Your task to perform on an android device: Go to battery settings Image 0: 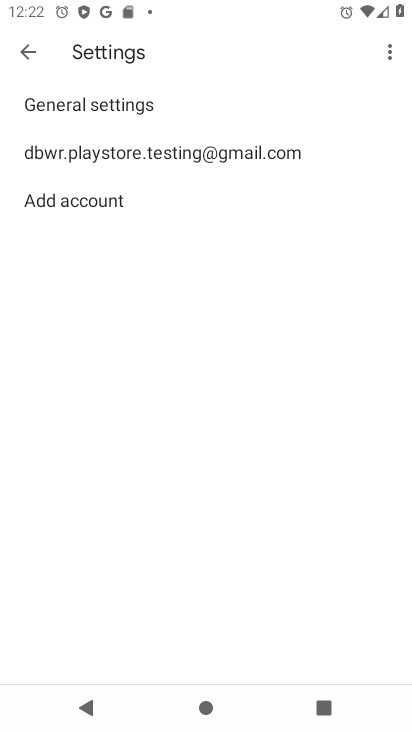
Step 0: press home button
Your task to perform on an android device: Go to battery settings Image 1: 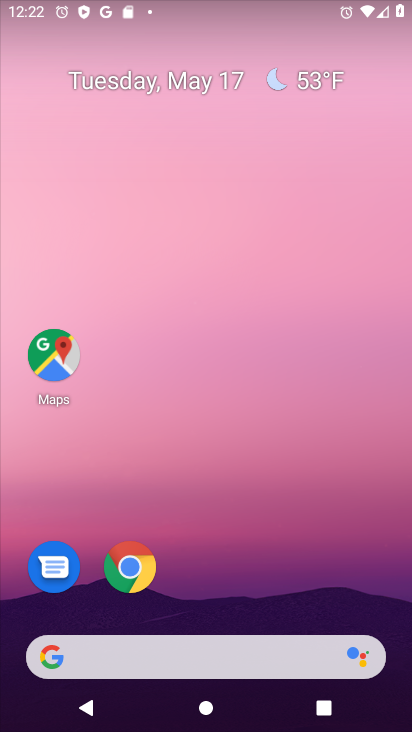
Step 1: drag from (348, 554) to (346, 108)
Your task to perform on an android device: Go to battery settings Image 2: 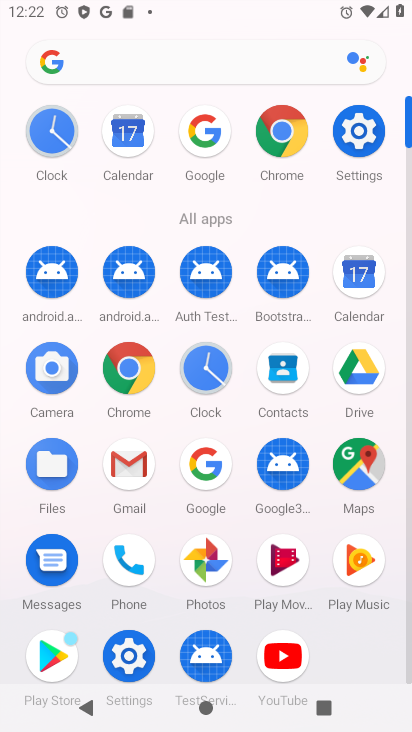
Step 2: click (364, 137)
Your task to perform on an android device: Go to battery settings Image 3: 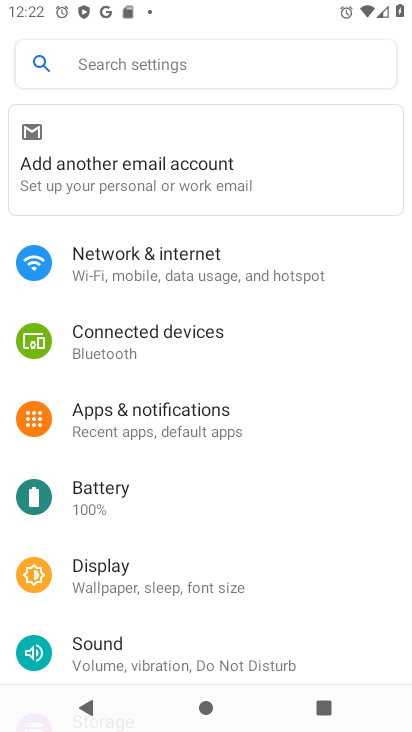
Step 3: drag from (320, 511) to (333, 420)
Your task to perform on an android device: Go to battery settings Image 4: 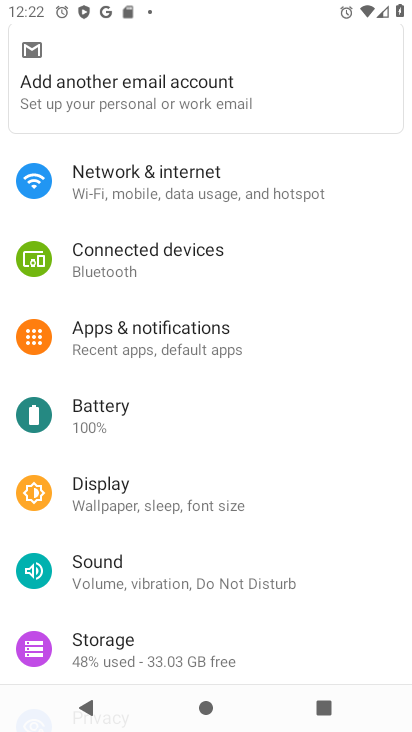
Step 4: drag from (343, 562) to (356, 439)
Your task to perform on an android device: Go to battery settings Image 5: 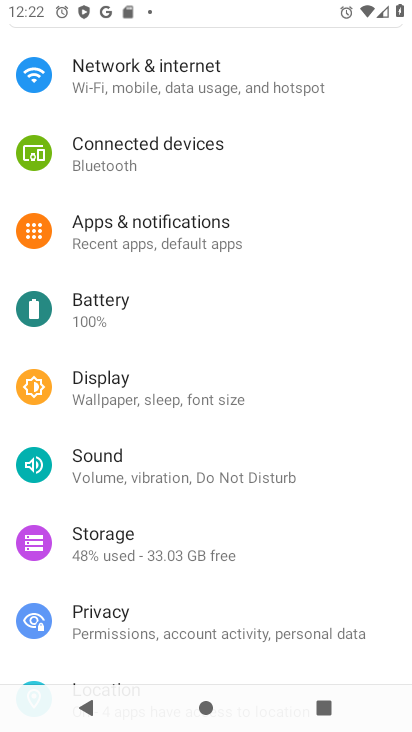
Step 5: drag from (339, 552) to (362, 408)
Your task to perform on an android device: Go to battery settings Image 6: 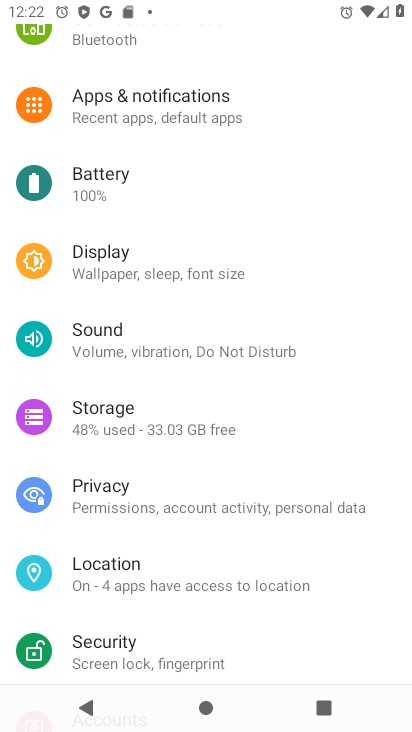
Step 6: drag from (334, 603) to (332, 455)
Your task to perform on an android device: Go to battery settings Image 7: 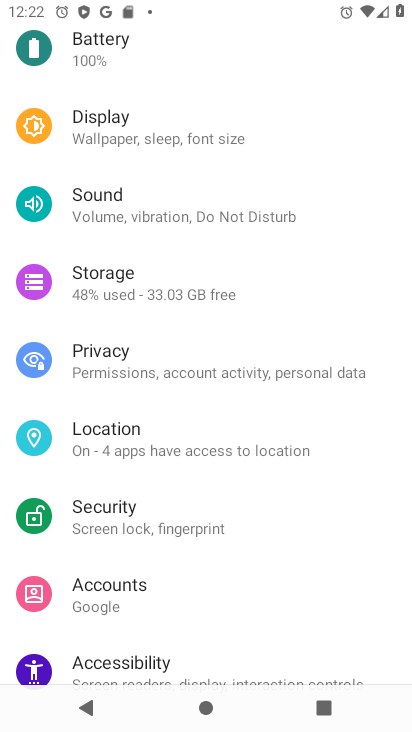
Step 7: drag from (298, 603) to (288, 477)
Your task to perform on an android device: Go to battery settings Image 8: 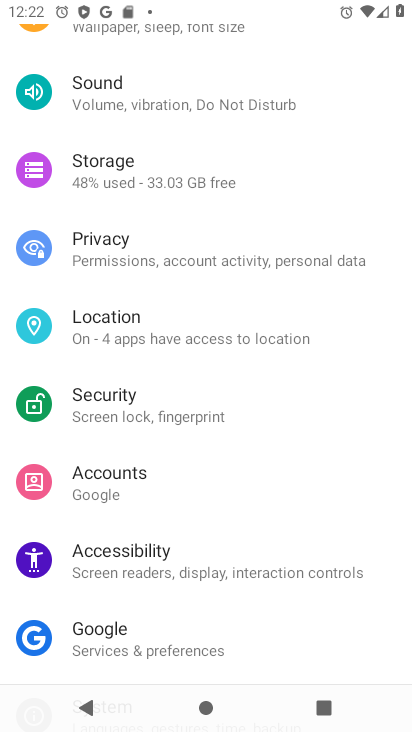
Step 8: drag from (273, 611) to (295, 501)
Your task to perform on an android device: Go to battery settings Image 9: 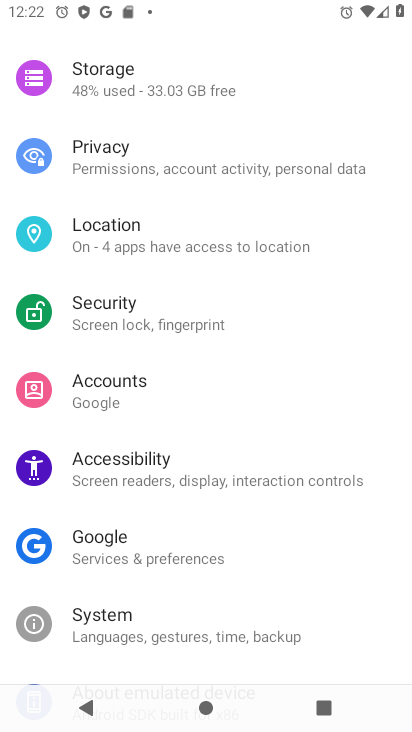
Step 9: drag from (292, 563) to (298, 444)
Your task to perform on an android device: Go to battery settings Image 10: 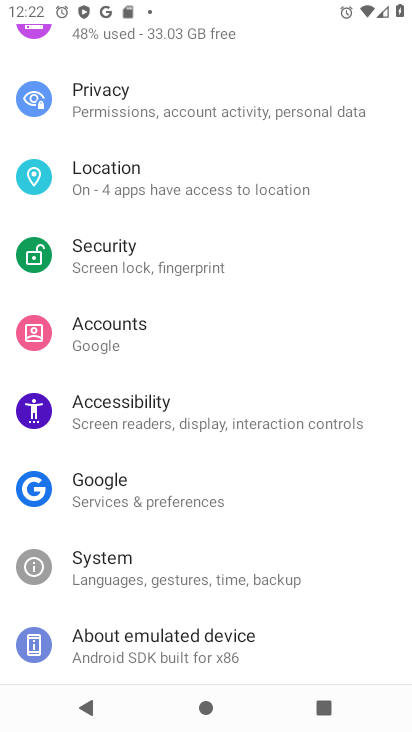
Step 10: drag from (308, 631) to (317, 533)
Your task to perform on an android device: Go to battery settings Image 11: 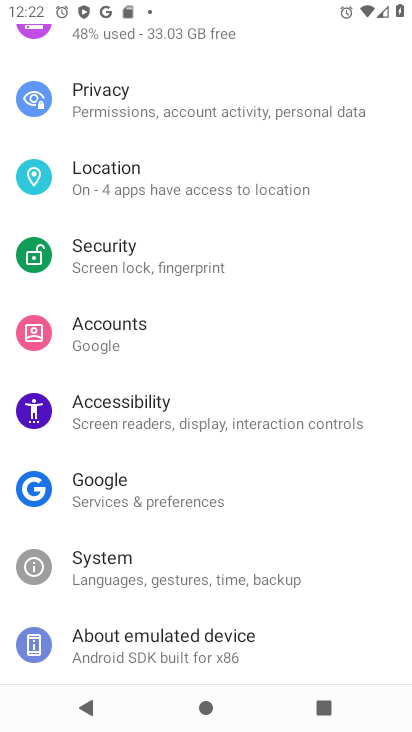
Step 11: drag from (323, 363) to (307, 447)
Your task to perform on an android device: Go to battery settings Image 12: 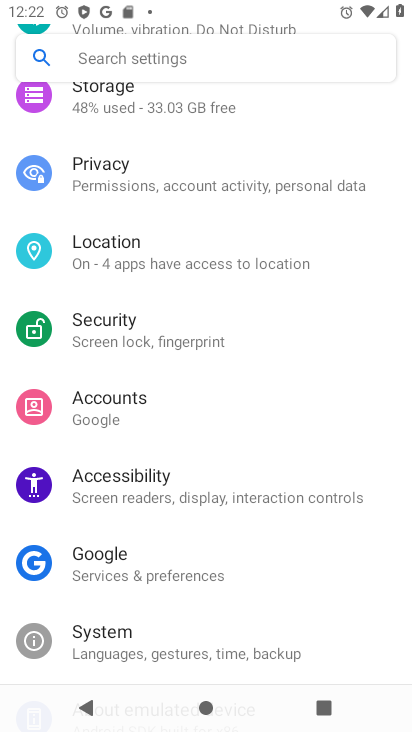
Step 12: drag from (315, 360) to (316, 537)
Your task to perform on an android device: Go to battery settings Image 13: 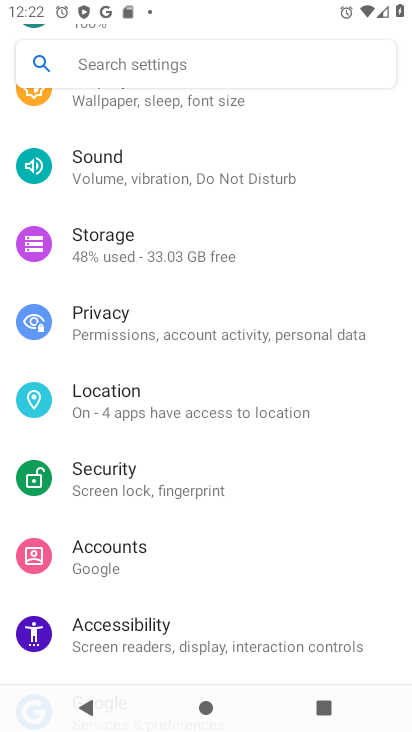
Step 13: drag from (306, 293) to (318, 416)
Your task to perform on an android device: Go to battery settings Image 14: 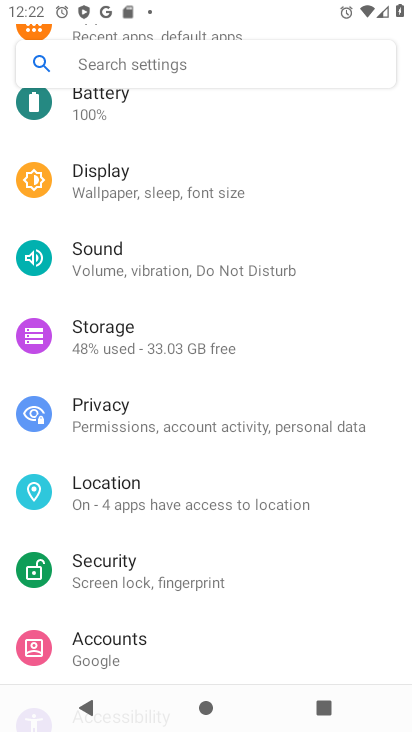
Step 14: drag from (332, 302) to (335, 399)
Your task to perform on an android device: Go to battery settings Image 15: 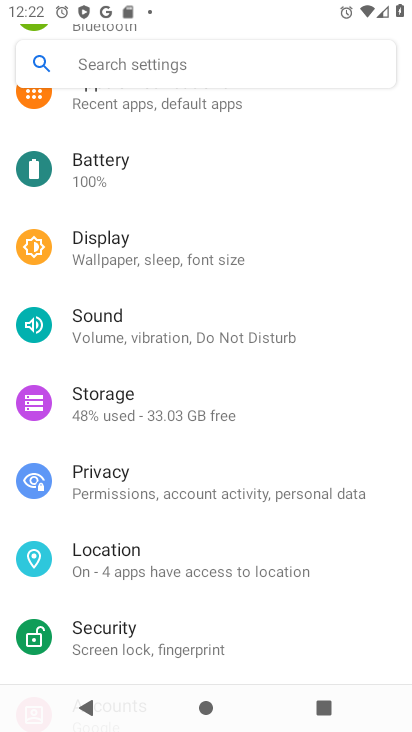
Step 15: drag from (343, 268) to (334, 412)
Your task to perform on an android device: Go to battery settings Image 16: 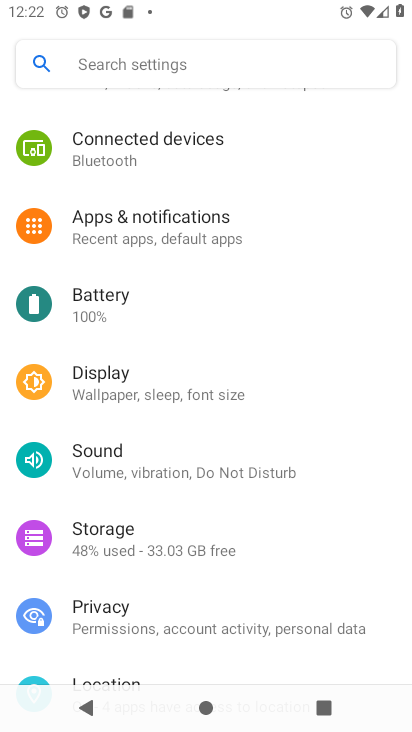
Step 16: click (95, 311)
Your task to perform on an android device: Go to battery settings Image 17: 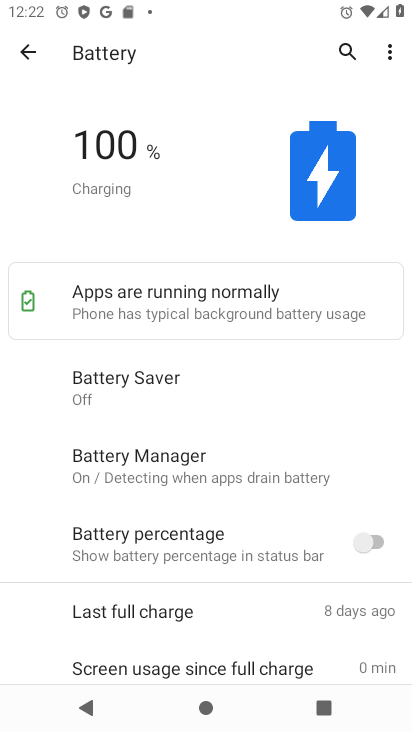
Step 17: task complete